Your task to perform on an android device: Open the stopwatch Image 0: 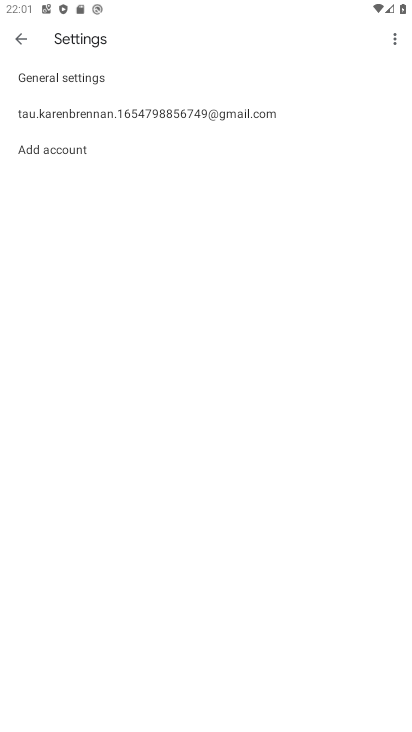
Step 0: press home button
Your task to perform on an android device: Open the stopwatch Image 1: 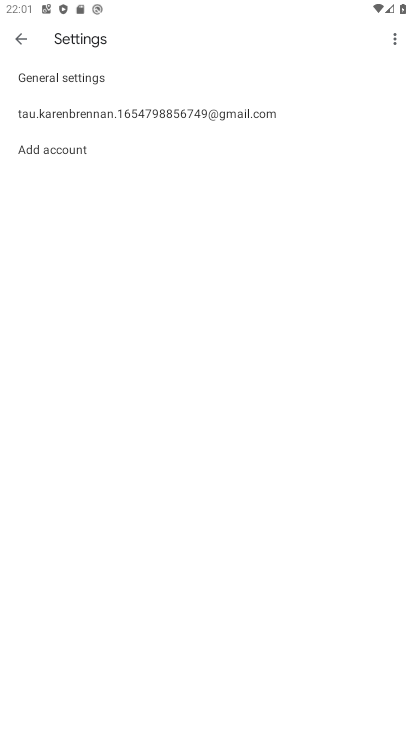
Step 1: press home button
Your task to perform on an android device: Open the stopwatch Image 2: 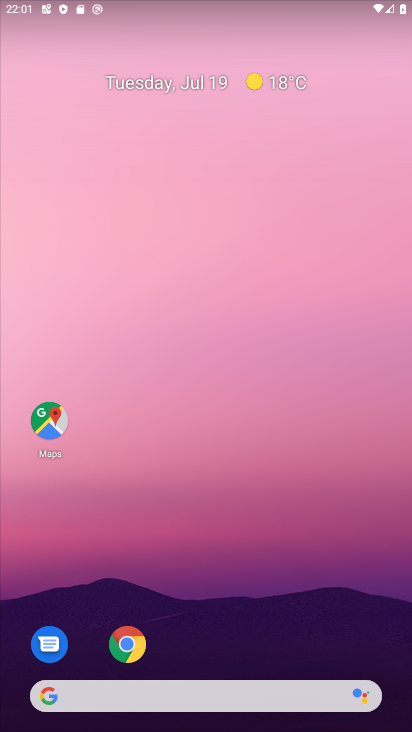
Step 2: drag from (209, 723) to (213, 293)
Your task to perform on an android device: Open the stopwatch Image 3: 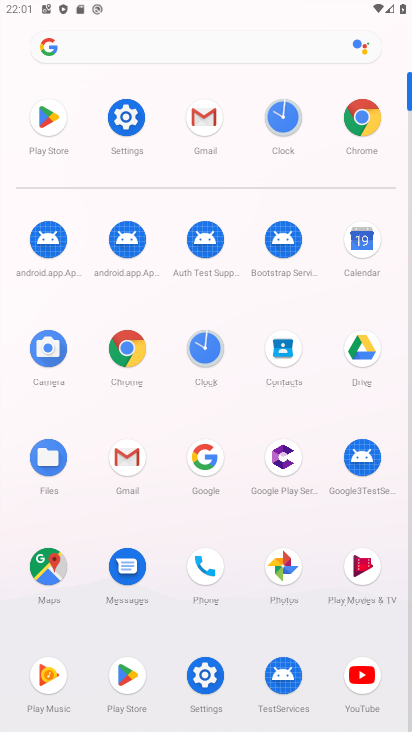
Step 3: click (195, 352)
Your task to perform on an android device: Open the stopwatch Image 4: 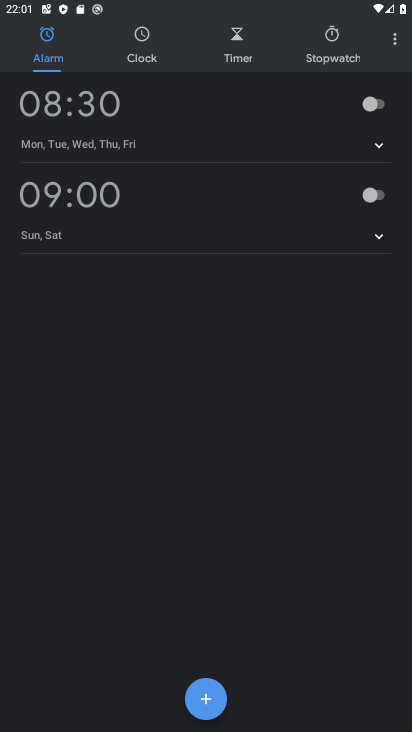
Step 4: click (325, 36)
Your task to perform on an android device: Open the stopwatch Image 5: 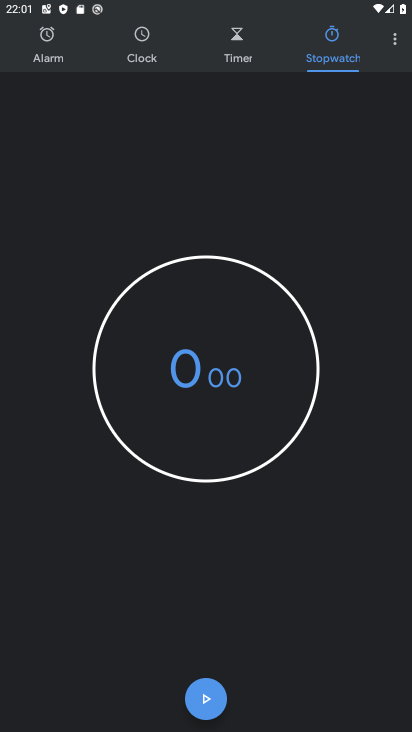
Step 5: task complete